Your task to perform on an android device: add a contact Image 0: 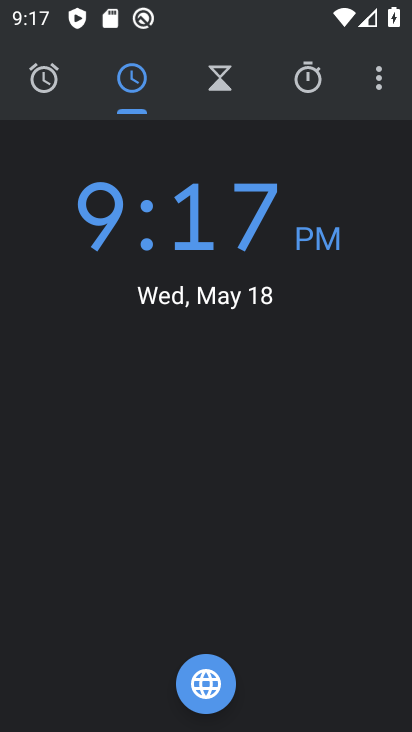
Step 0: press back button
Your task to perform on an android device: add a contact Image 1: 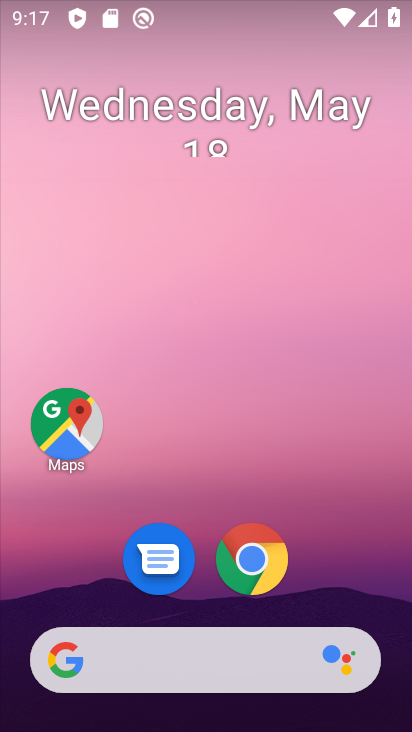
Step 1: drag from (311, 511) to (292, 50)
Your task to perform on an android device: add a contact Image 2: 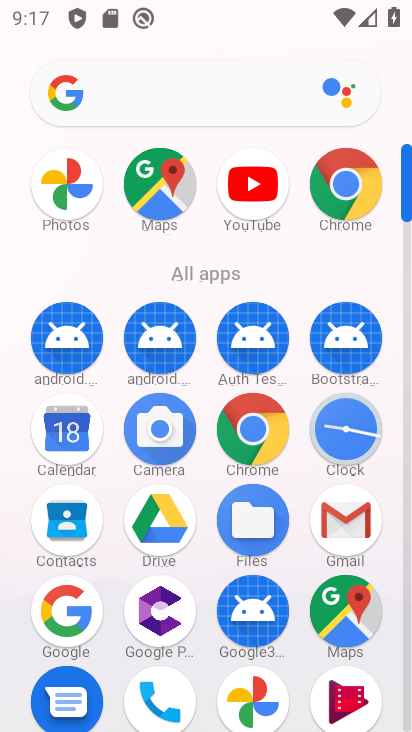
Step 2: drag from (9, 633) to (44, 342)
Your task to perform on an android device: add a contact Image 3: 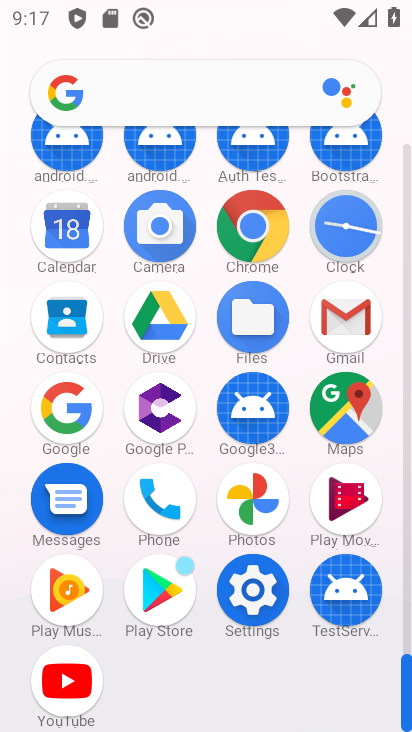
Step 3: click (69, 321)
Your task to perform on an android device: add a contact Image 4: 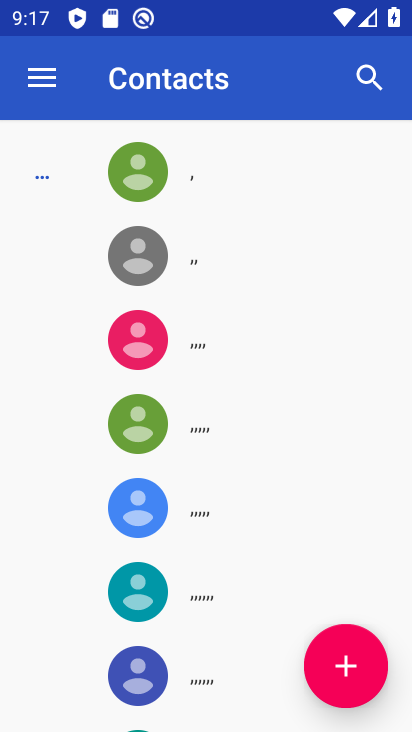
Step 4: click (331, 655)
Your task to perform on an android device: add a contact Image 5: 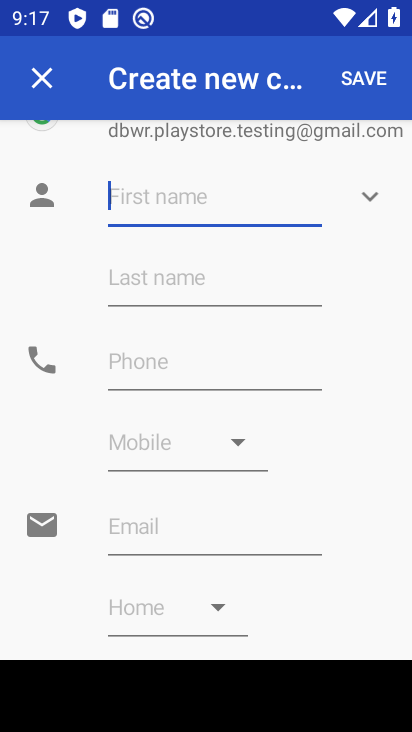
Step 5: type "ZXcv"
Your task to perform on an android device: add a contact Image 6: 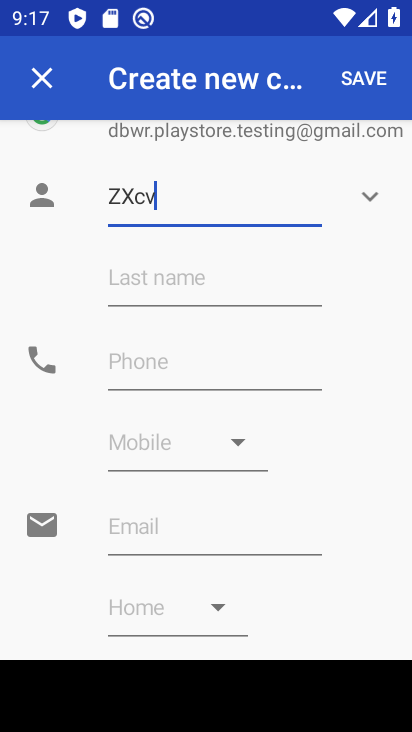
Step 6: type ""
Your task to perform on an android device: add a contact Image 7: 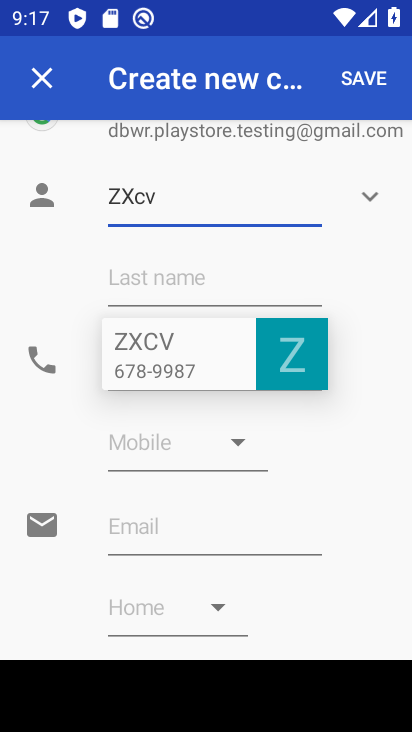
Step 7: click (191, 360)
Your task to perform on an android device: add a contact Image 8: 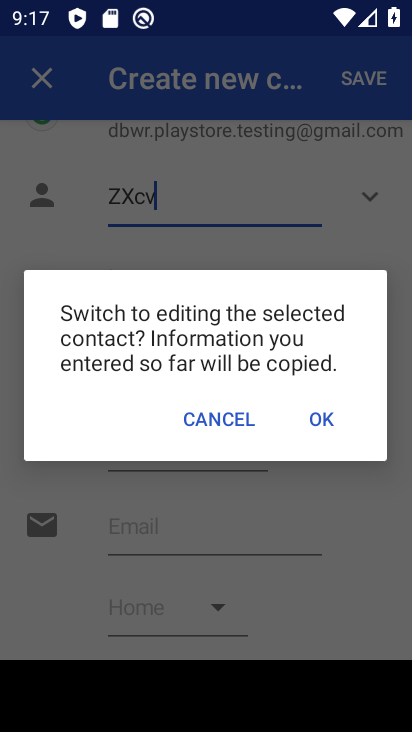
Step 8: click (316, 419)
Your task to perform on an android device: add a contact Image 9: 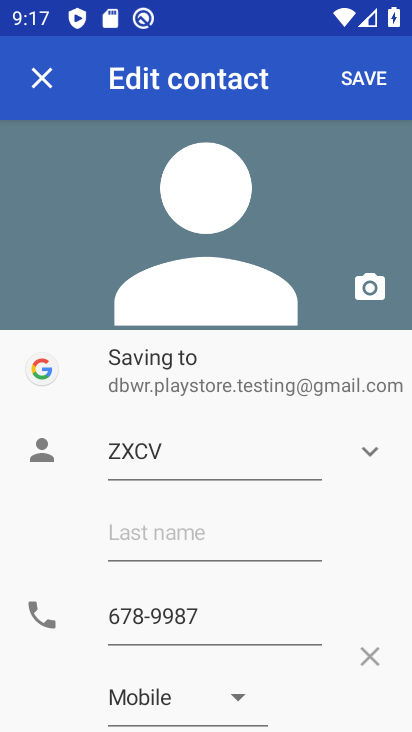
Step 9: click (366, 71)
Your task to perform on an android device: add a contact Image 10: 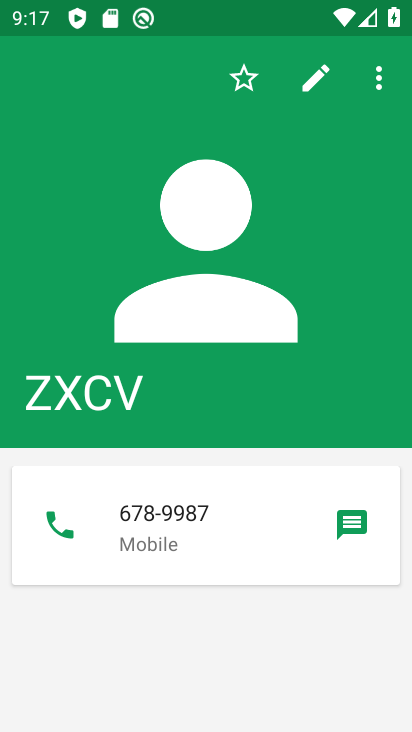
Step 10: task complete